Your task to perform on an android device: Search for pizza restaurants on Maps Image 0: 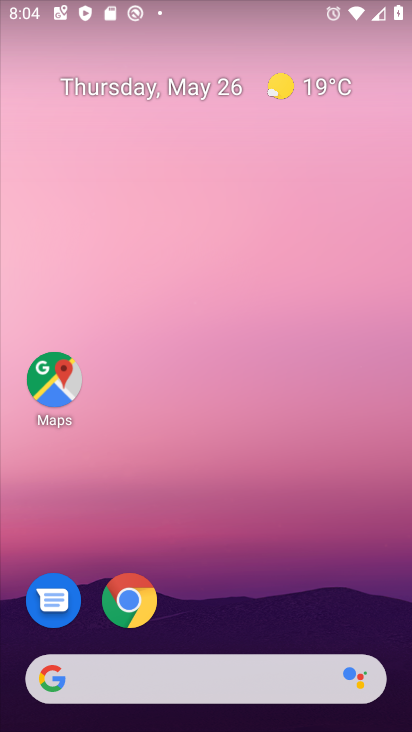
Step 0: press home button
Your task to perform on an android device: Search for pizza restaurants on Maps Image 1: 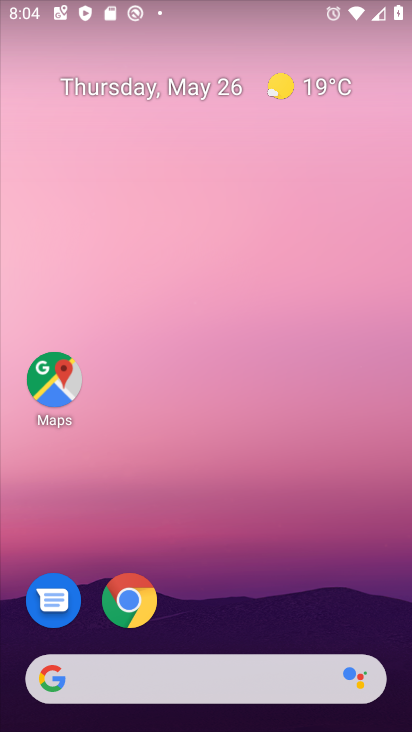
Step 1: click (50, 380)
Your task to perform on an android device: Search for pizza restaurants on Maps Image 2: 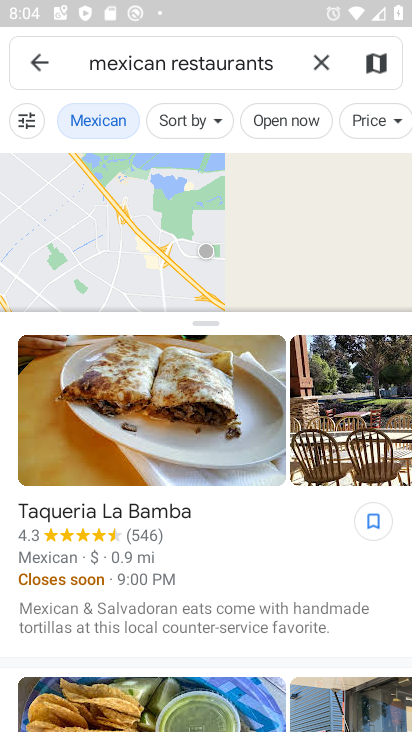
Step 2: click (322, 65)
Your task to perform on an android device: Search for pizza restaurants on Maps Image 3: 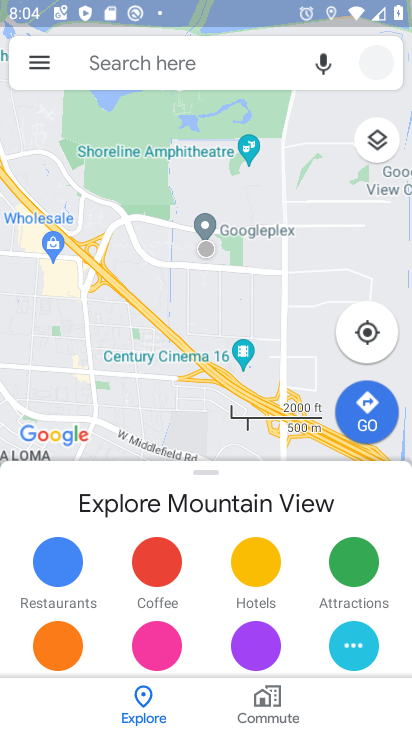
Step 3: click (180, 62)
Your task to perform on an android device: Search for pizza restaurants on Maps Image 4: 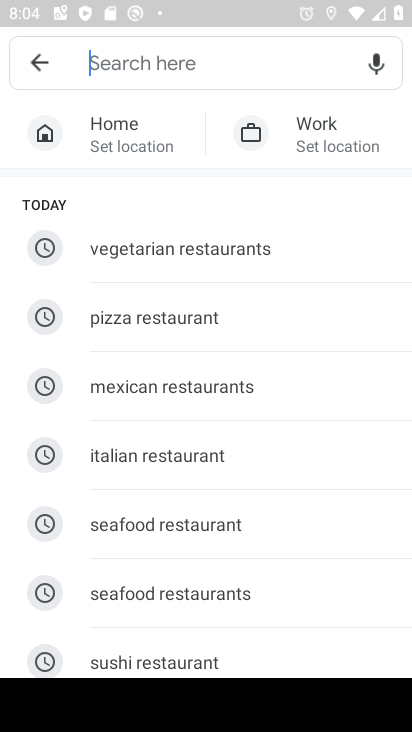
Step 4: click (152, 318)
Your task to perform on an android device: Search for pizza restaurants on Maps Image 5: 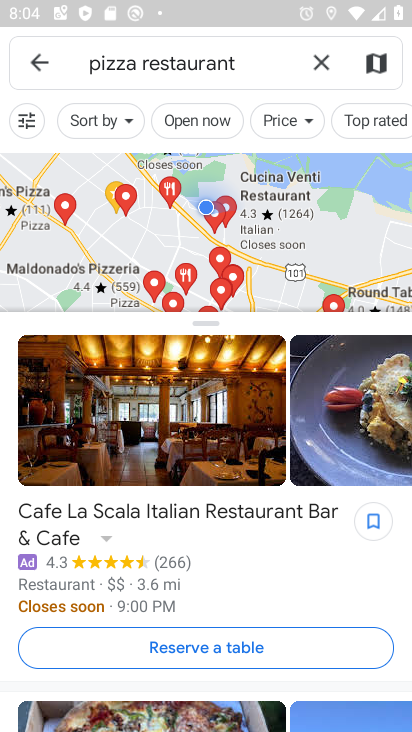
Step 5: task complete